Your task to perform on an android device: Open notification settings Image 0: 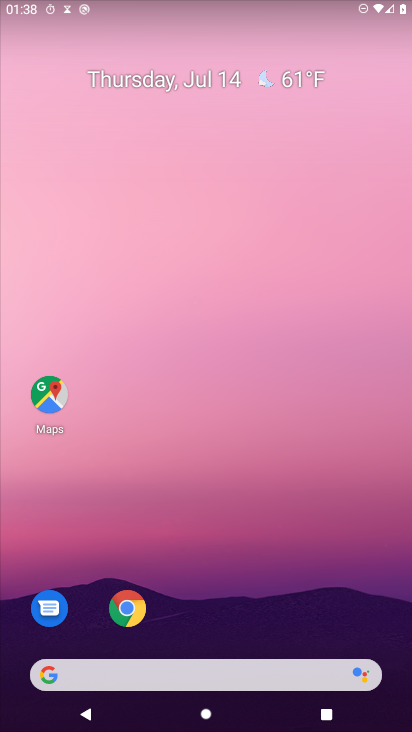
Step 0: drag from (265, 559) to (299, 9)
Your task to perform on an android device: Open notification settings Image 1: 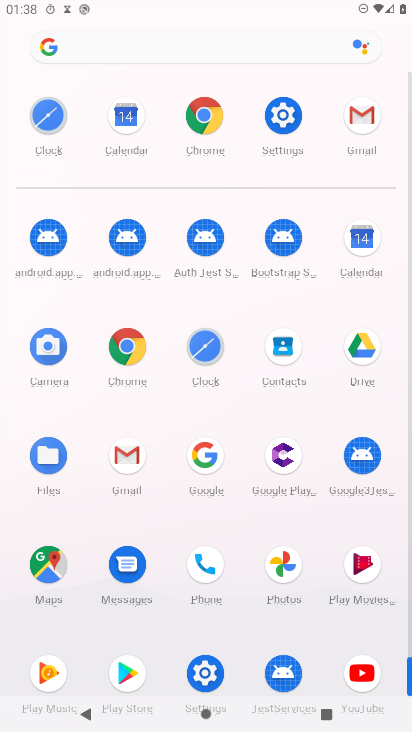
Step 1: click (279, 114)
Your task to perform on an android device: Open notification settings Image 2: 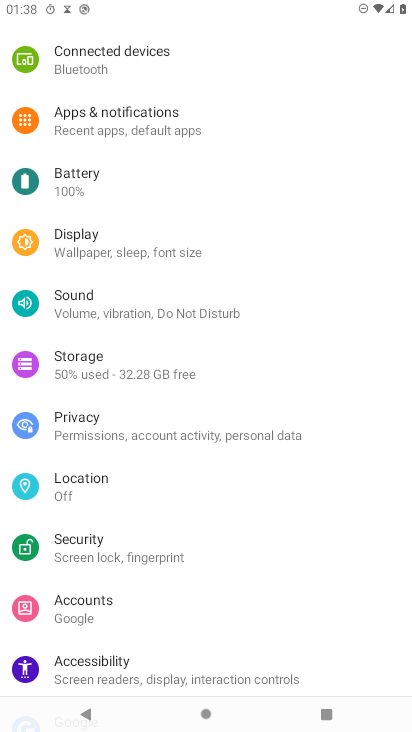
Step 2: click (143, 118)
Your task to perform on an android device: Open notification settings Image 3: 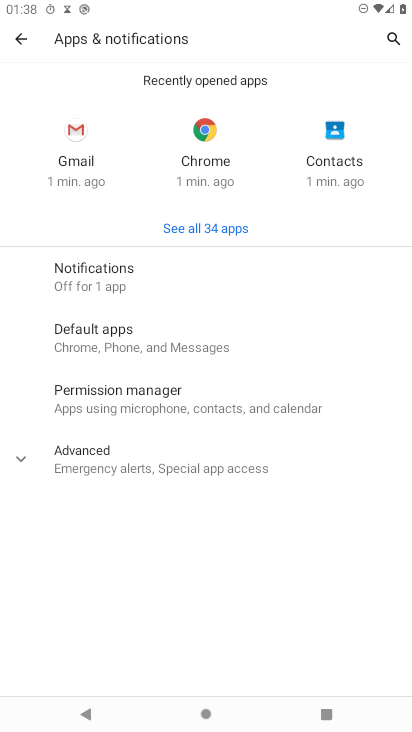
Step 3: task complete